Your task to perform on an android device: Search for usb-a to usb-b on target, select the first entry, and add it to the cart. Image 0: 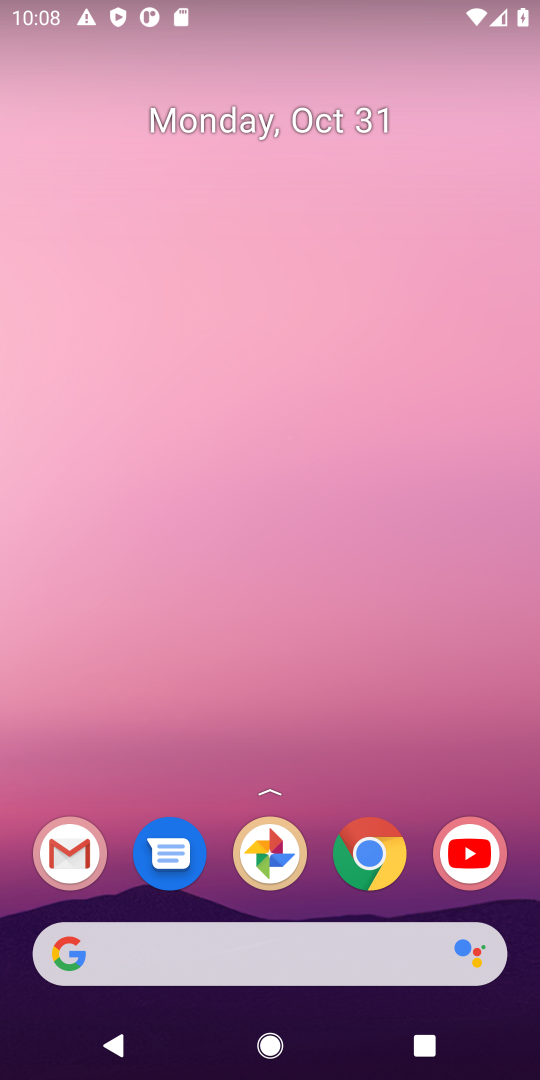
Step 0: click (138, 952)
Your task to perform on an android device: Search for usb-a to usb-b on target, select the first entry, and add it to the cart. Image 1: 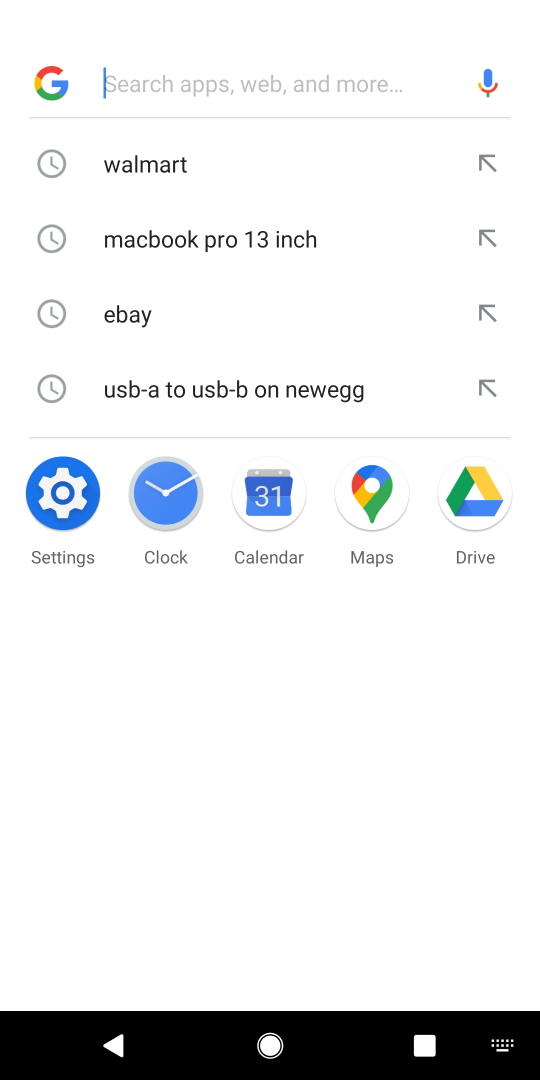
Step 1: type "target"
Your task to perform on an android device: Search for usb-a to usb-b on target, select the first entry, and add it to the cart. Image 2: 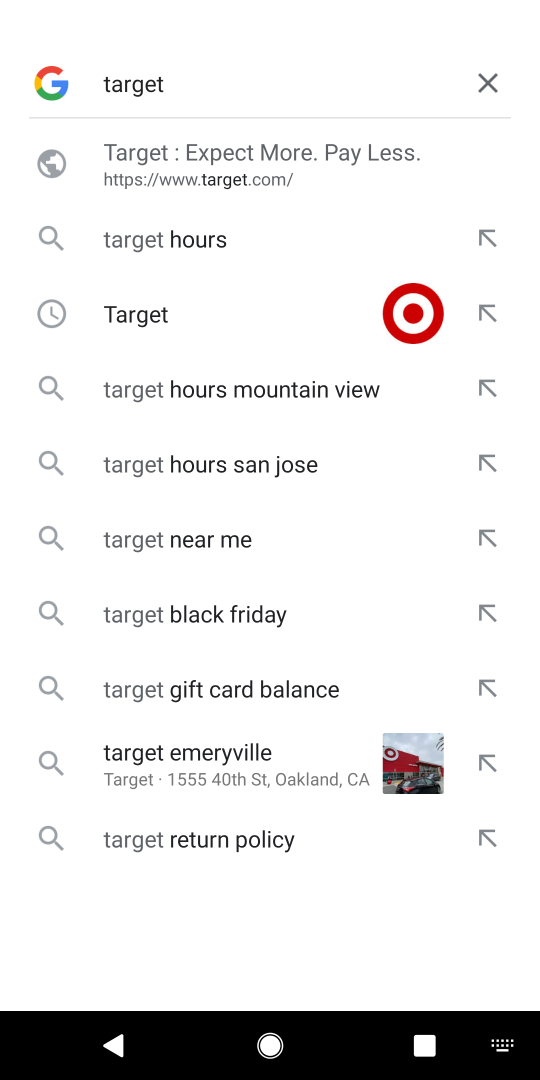
Step 2: type ""
Your task to perform on an android device: Search for usb-a to usb-b on target, select the first entry, and add it to the cart. Image 3: 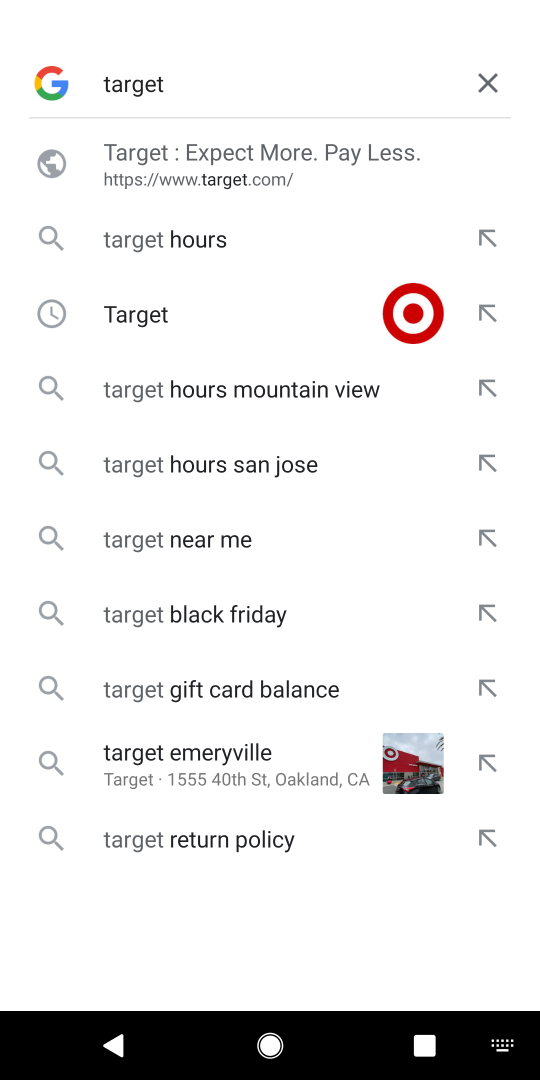
Step 3: click (179, 187)
Your task to perform on an android device: Search for usb-a to usb-b on target, select the first entry, and add it to the cart. Image 4: 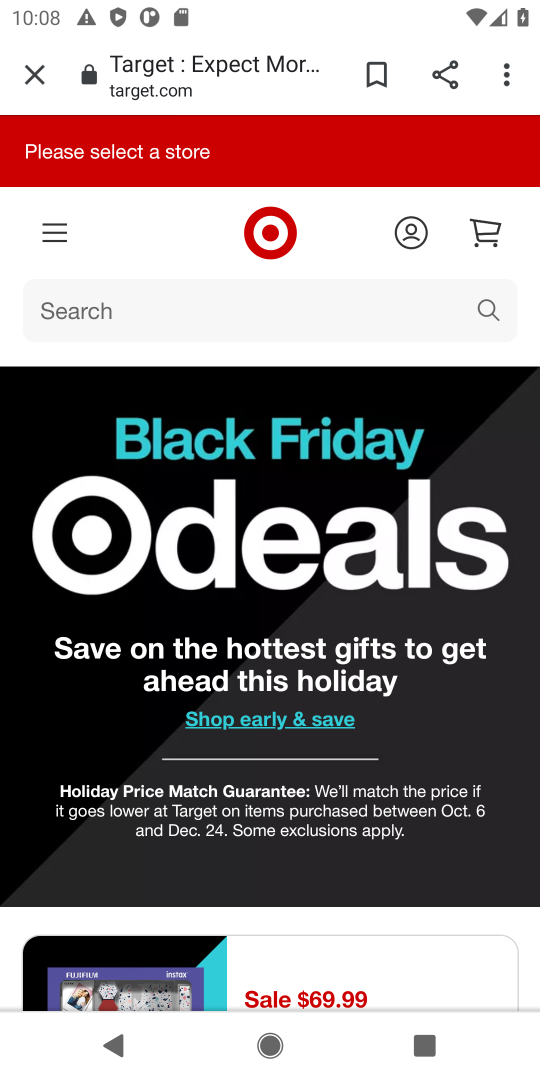
Step 4: click (142, 315)
Your task to perform on an android device: Search for usb-a to usb-b on target, select the first entry, and add it to the cart. Image 5: 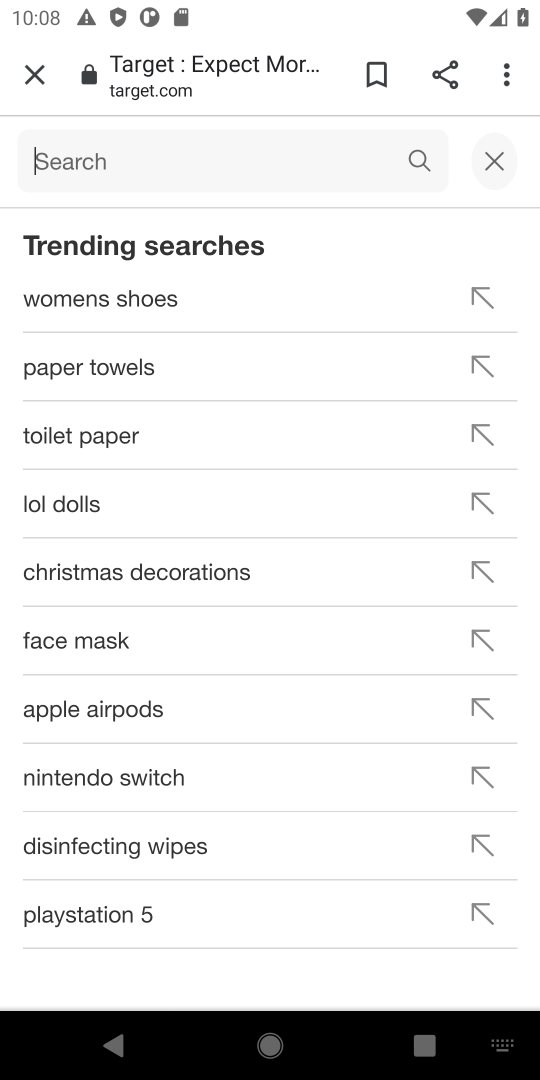
Step 5: type "usb-a to usb-b "
Your task to perform on an android device: Search for usb-a to usb-b on target, select the first entry, and add it to the cart. Image 6: 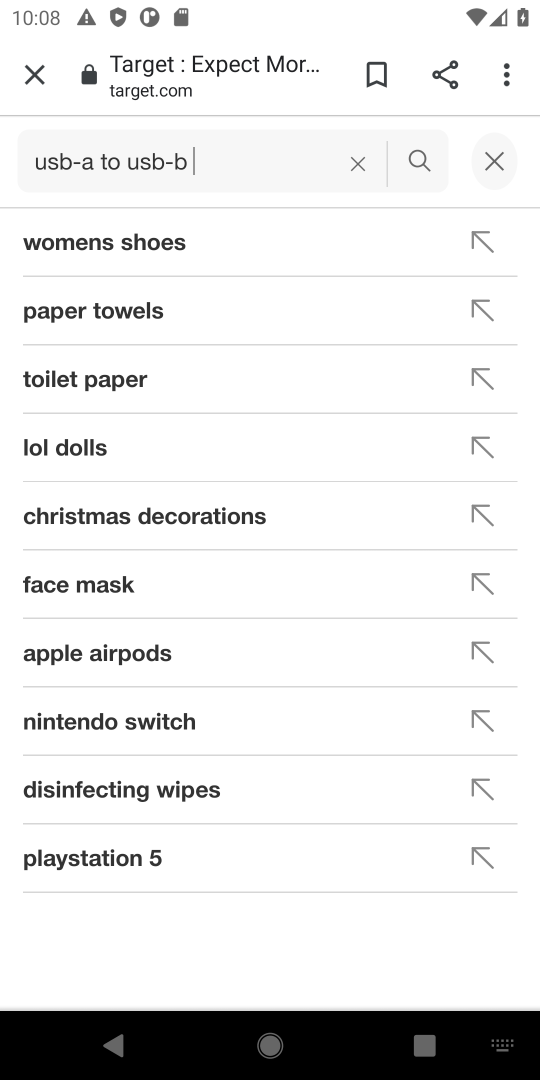
Step 6: type ""
Your task to perform on an android device: Search for usb-a to usb-b on target, select the first entry, and add it to the cart. Image 7: 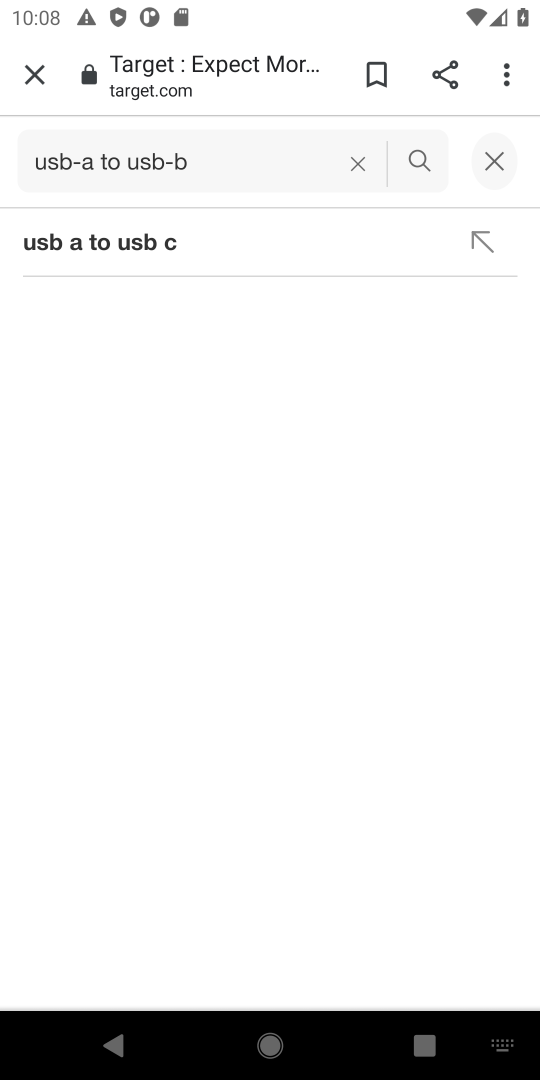
Step 7: click (413, 177)
Your task to perform on an android device: Search for usb-a to usb-b on target, select the first entry, and add it to the cart. Image 8: 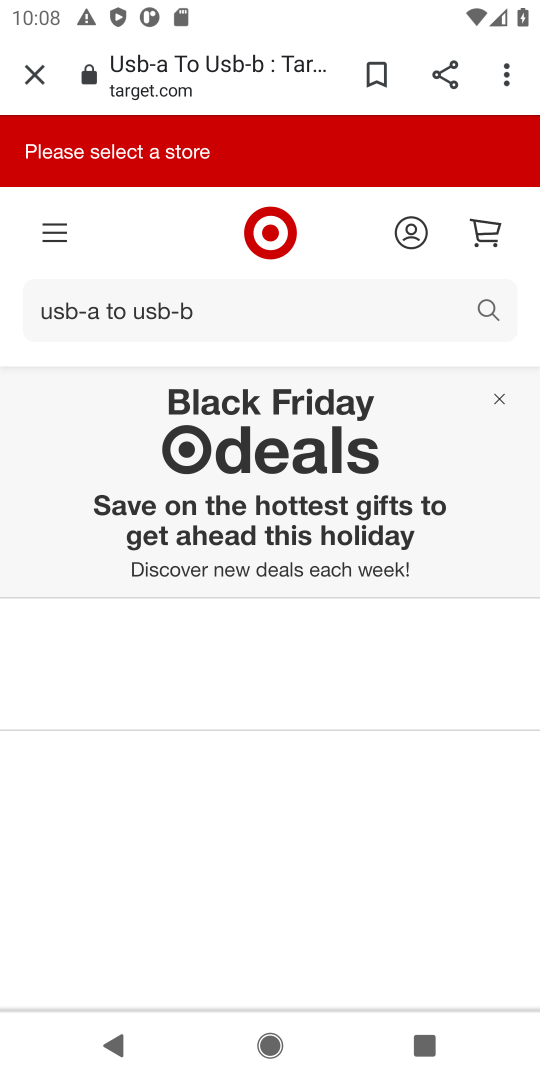
Step 8: click (413, 158)
Your task to perform on an android device: Search for usb-a to usb-b on target, select the first entry, and add it to the cart. Image 9: 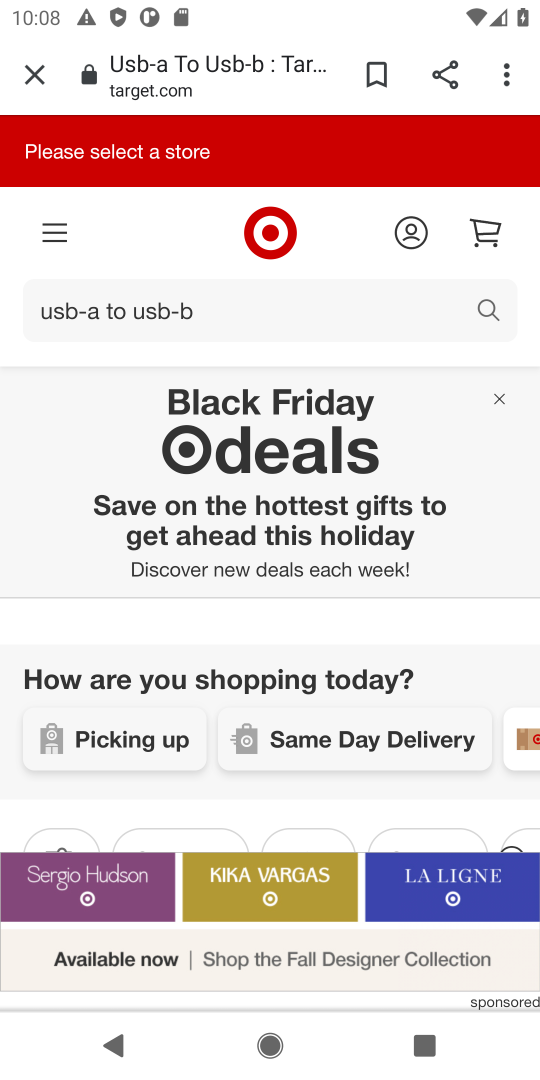
Step 9: drag from (289, 820) to (245, 404)
Your task to perform on an android device: Search for usb-a to usb-b on target, select the first entry, and add it to the cart. Image 10: 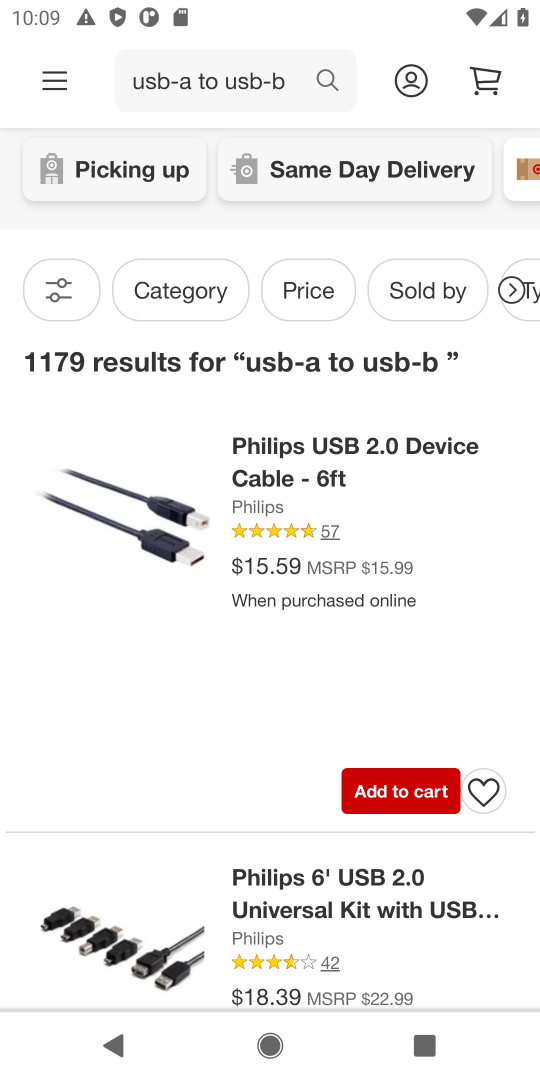
Step 10: click (270, 437)
Your task to perform on an android device: Search for usb-a to usb-b on target, select the first entry, and add it to the cart. Image 11: 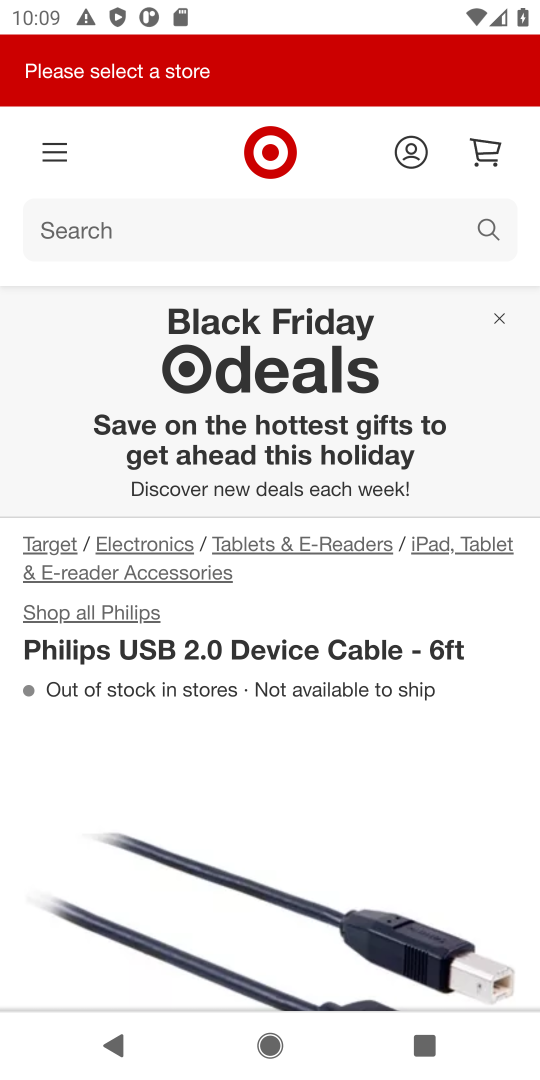
Step 11: drag from (287, 851) to (231, 422)
Your task to perform on an android device: Search for usb-a to usb-b on target, select the first entry, and add it to the cart. Image 12: 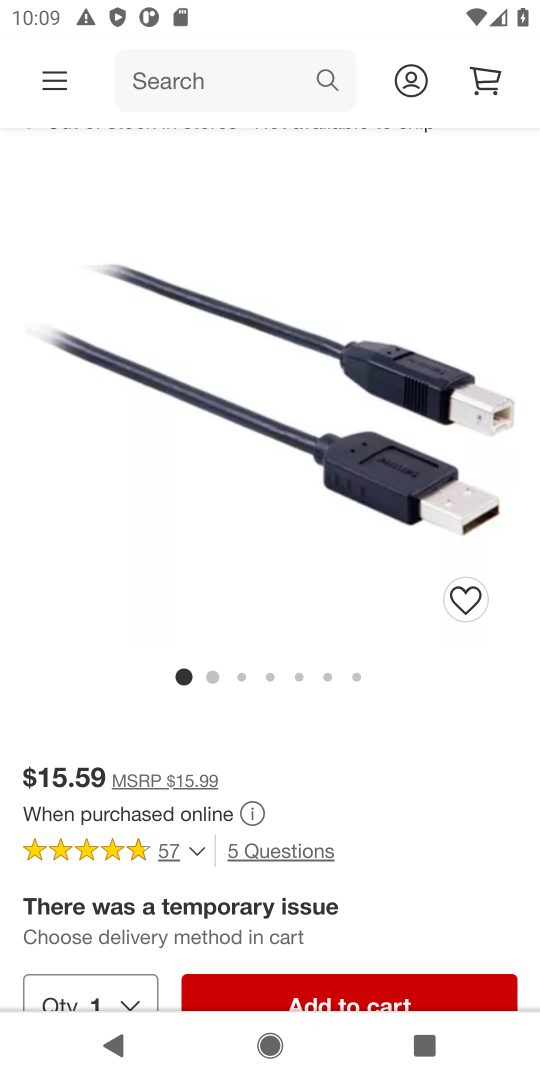
Step 12: drag from (346, 942) to (316, 683)
Your task to perform on an android device: Search for usb-a to usb-b on target, select the first entry, and add it to the cart. Image 13: 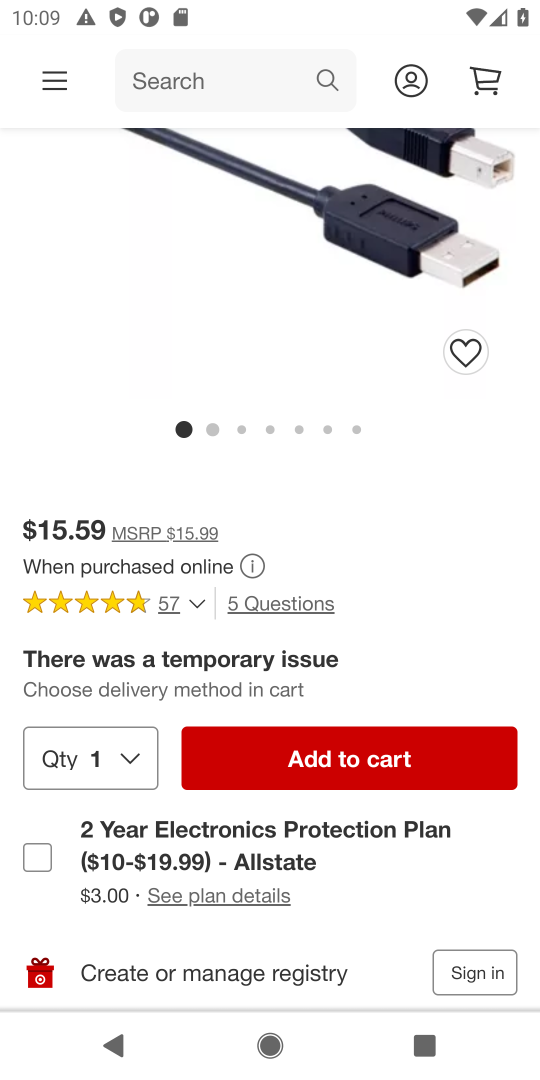
Step 13: click (331, 752)
Your task to perform on an android device: Search for usb-a to usb-b on target, select the first entry, and add it to the cart. Image 14: 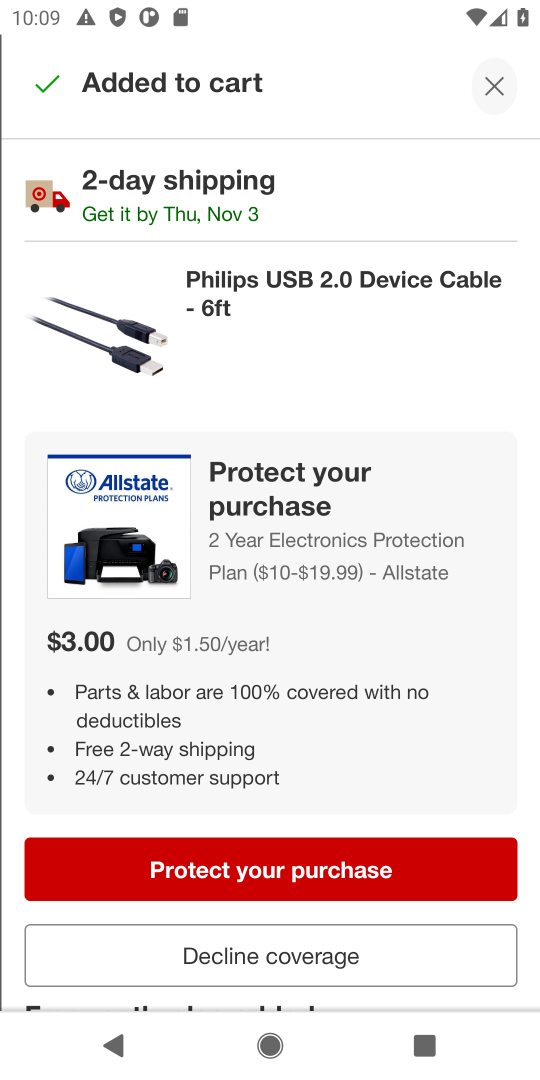
Step 14: task complete